Your task to perform on an android device: What's the weather today? Image 0: 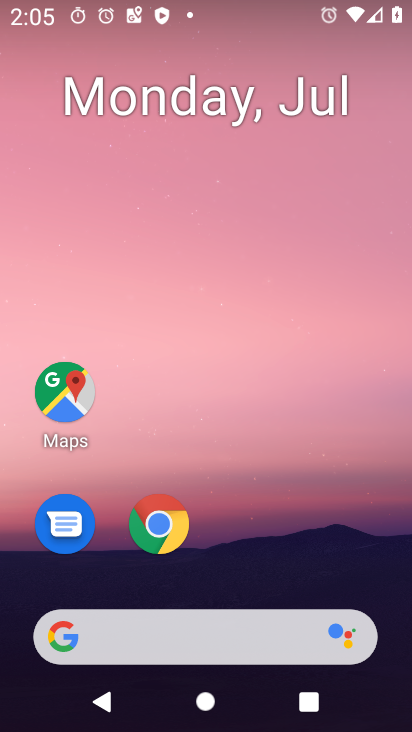
Step 0: press home button
Your task to perform on an android device: What's the weather today? Image 1: 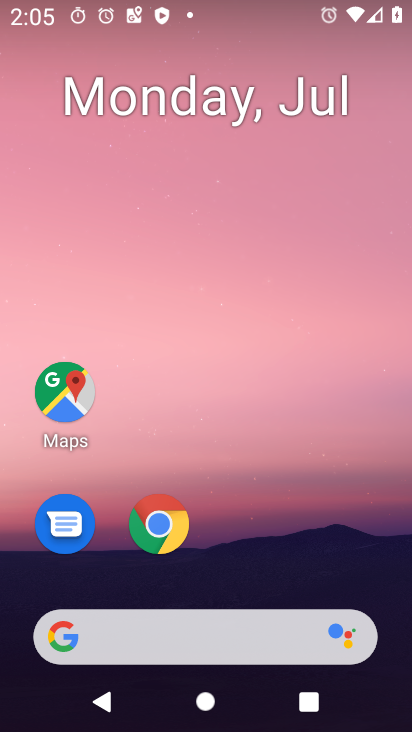
Step 1: click (64, 648)
Your task to perform on an android device: What's the weather today? Image 2: 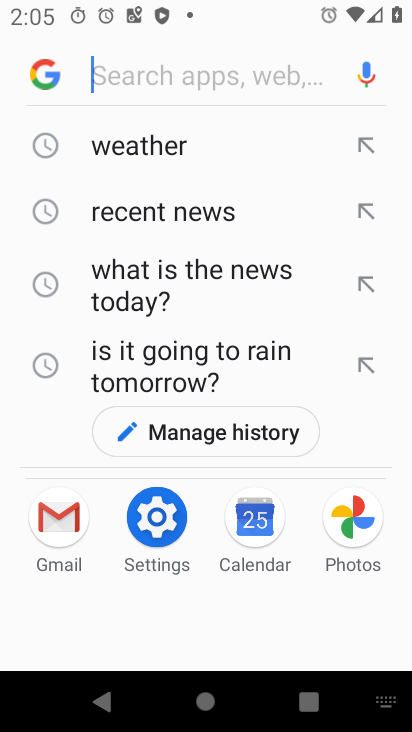
Step 2: type "weather today?"
Your task to perform on an android device: What's the weather today? Image 3: 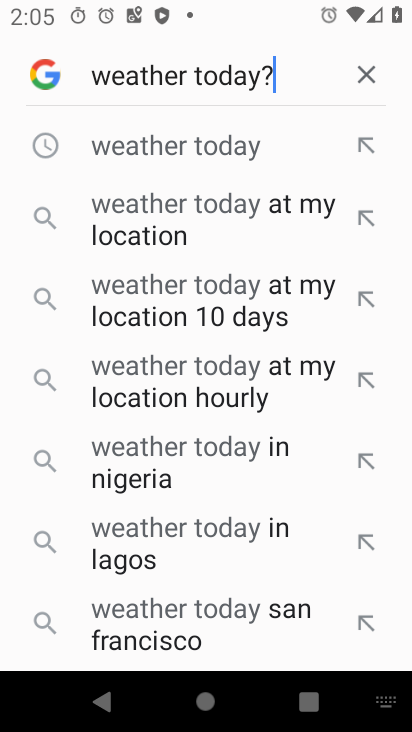
Step 3: press enter
Your task to perform on an android device: What's the weather today? Image 4: 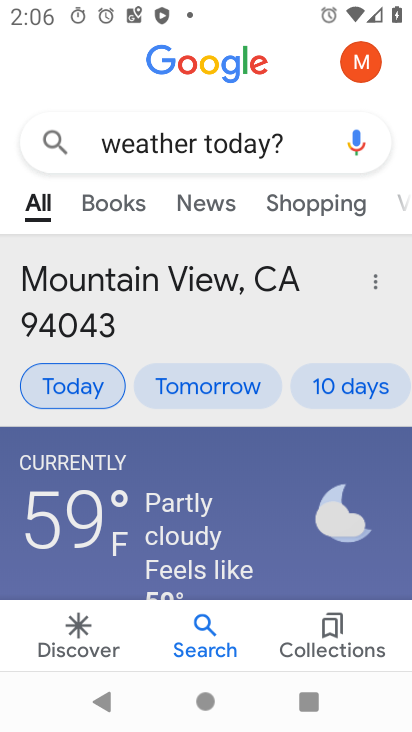
Step 4: task complete